Your task to perform on an android device: Open the map Image 0: 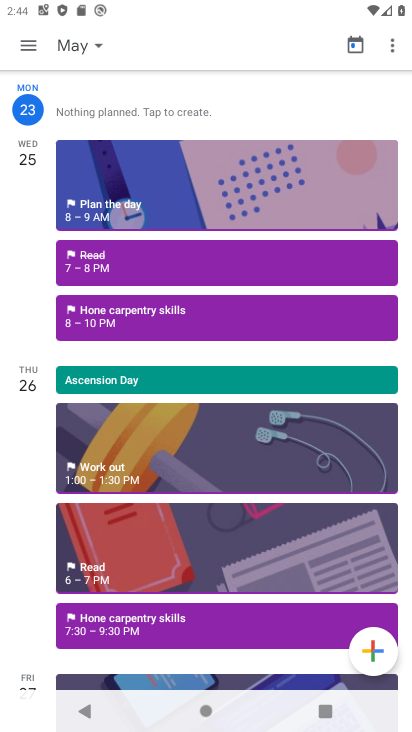
Step 0: press home button
Your task to perform on an android device: Open the map Image 1: 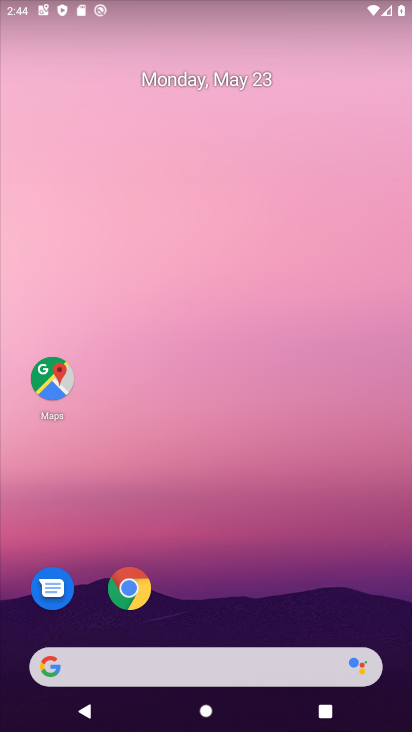
Step 1: drag from (227, 716) to (223, 217)
Your task to perform on an android device: Open the map Image 2: 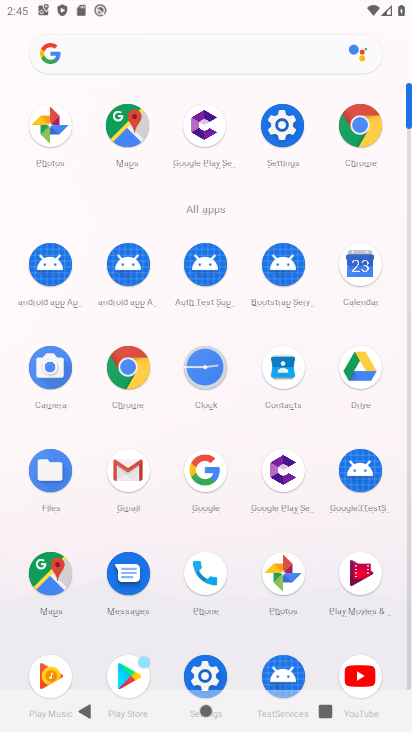
Step 2: click (57, 573)
Your task to perform on an android device: Open the map Image 3: 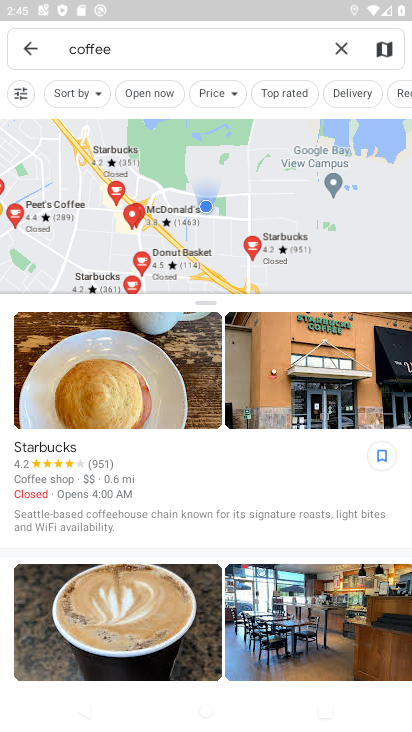
Step 3: task complete